Your task to perform on an android device: Go to CNN.com Image 0: 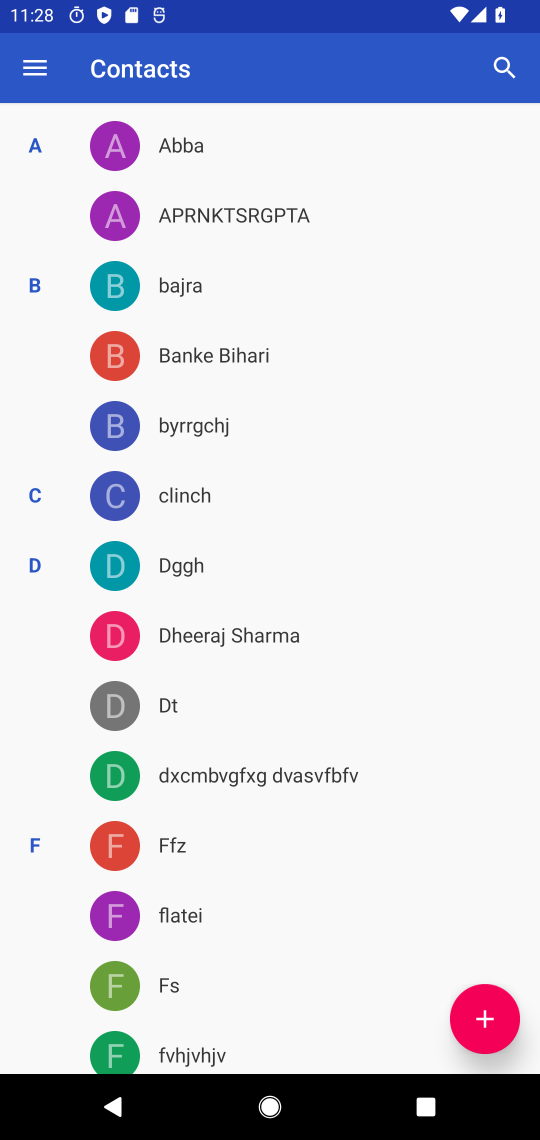
Step 0: press home button
Your task to perform on an android device: Go to CNN.com Image 1: 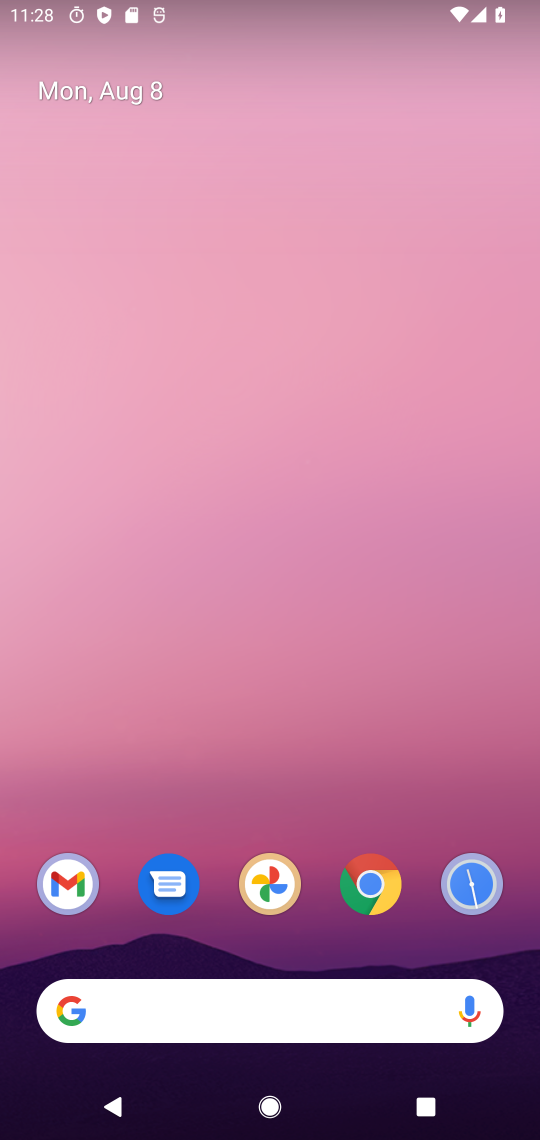
Step 1: click (371, 884)
Your task to perform on an android device: Go to CNN.com Image 2: 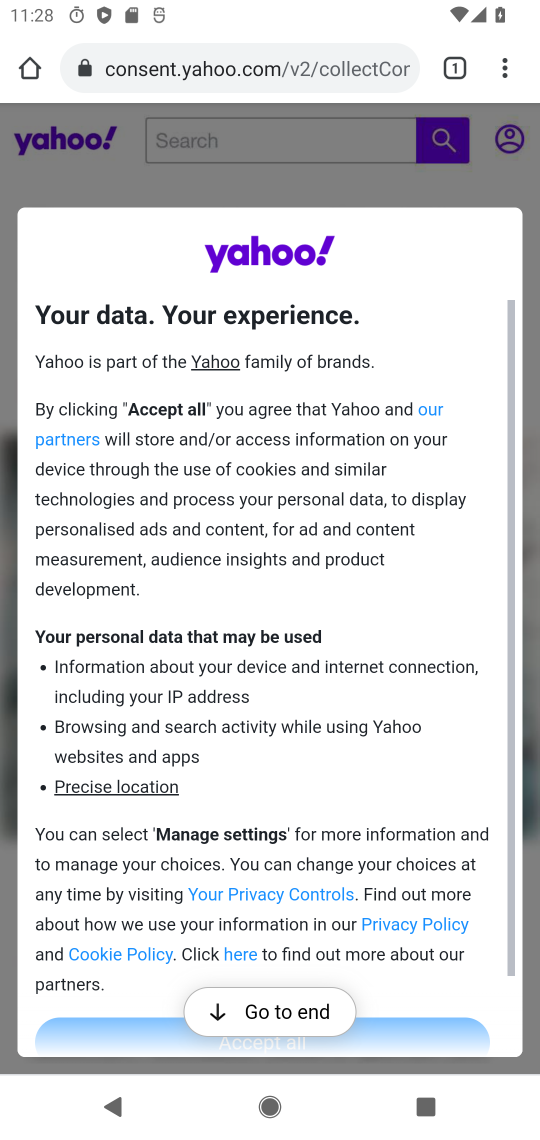
Step 2: click (239, 53)
Your task to perform on an android device: Go to CNN.com Image 3: 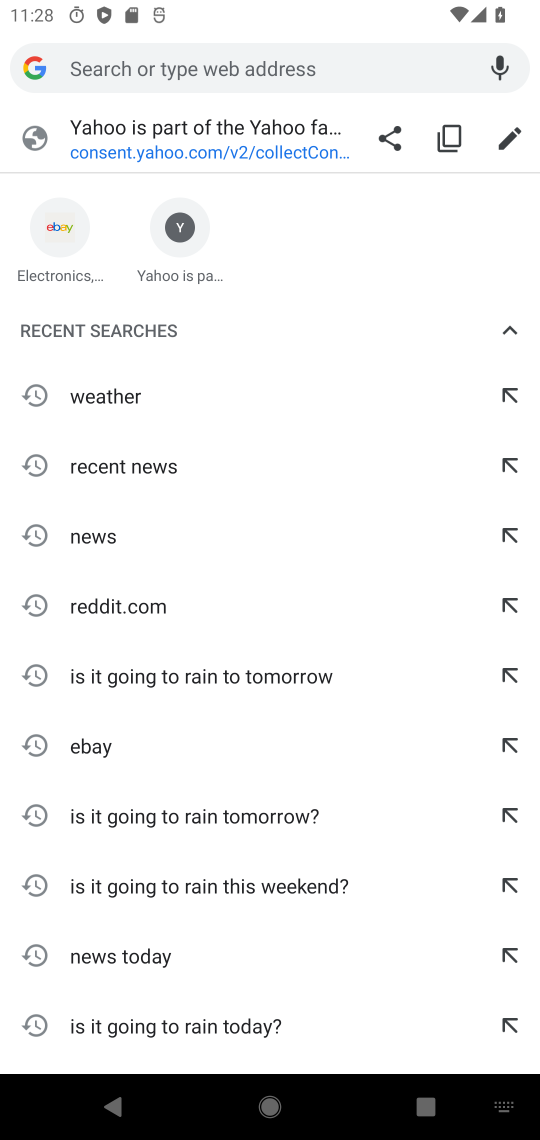
Step 3: type "www.cnn.com"
Your task to perform on an android device: Go to CNN.com Image 4: 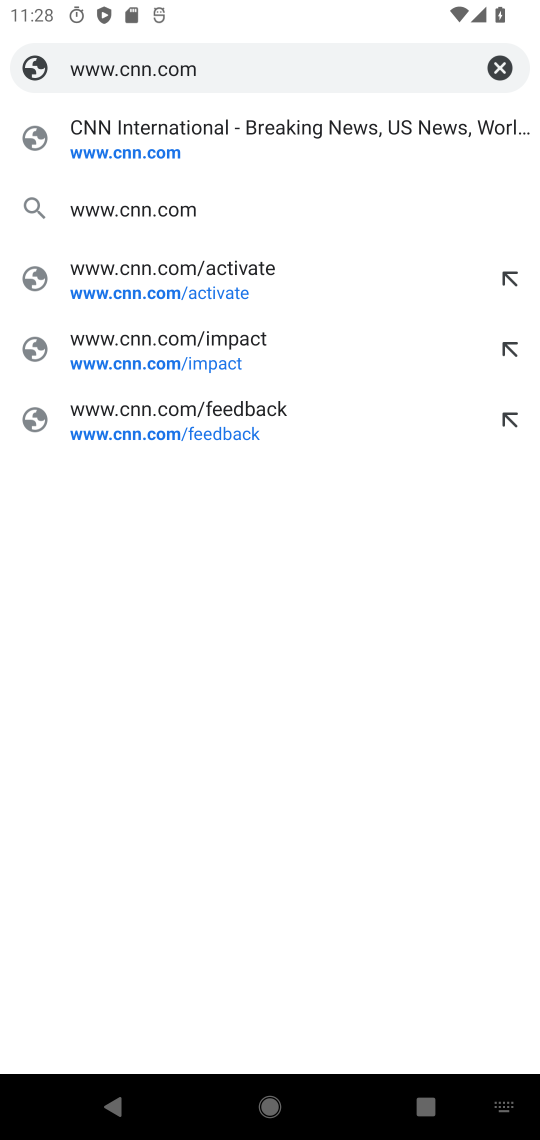
Step 4: click (159, 154)
Your task to perform on an android device: Go to CNN.com Image 5: 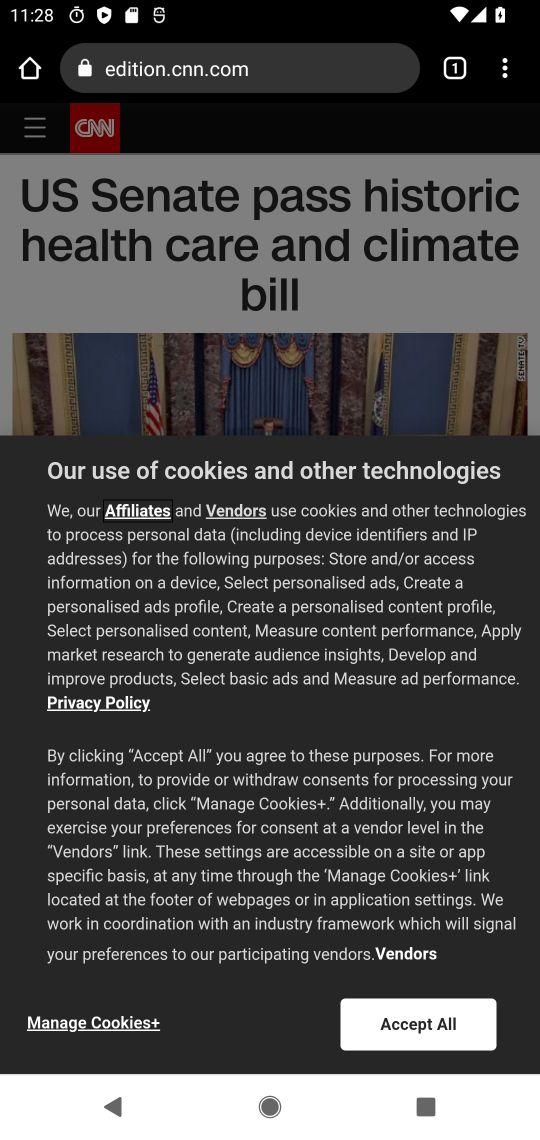
Step 5: task complete